Your task to perform on an android device: allow cookies in the chrome app Image 0: 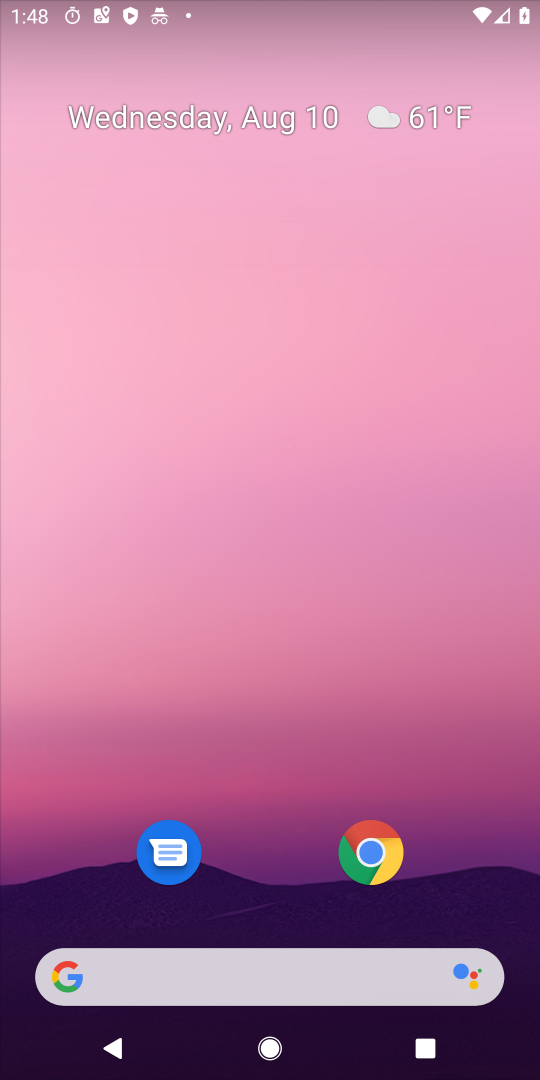
Step 0: drag from (265, 793) to (499, 53)
Your task to perform on an android device: allow cookies in the chrome app Image 1: 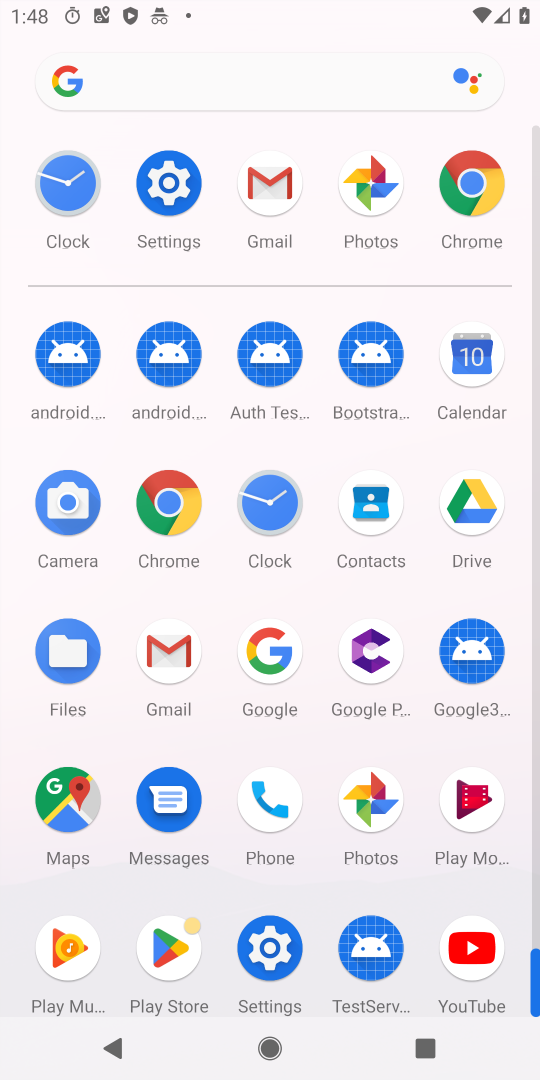
Step 1: click (170, 503)
Your task to perform on an android device: allow cookies in the chrome app Image 2: 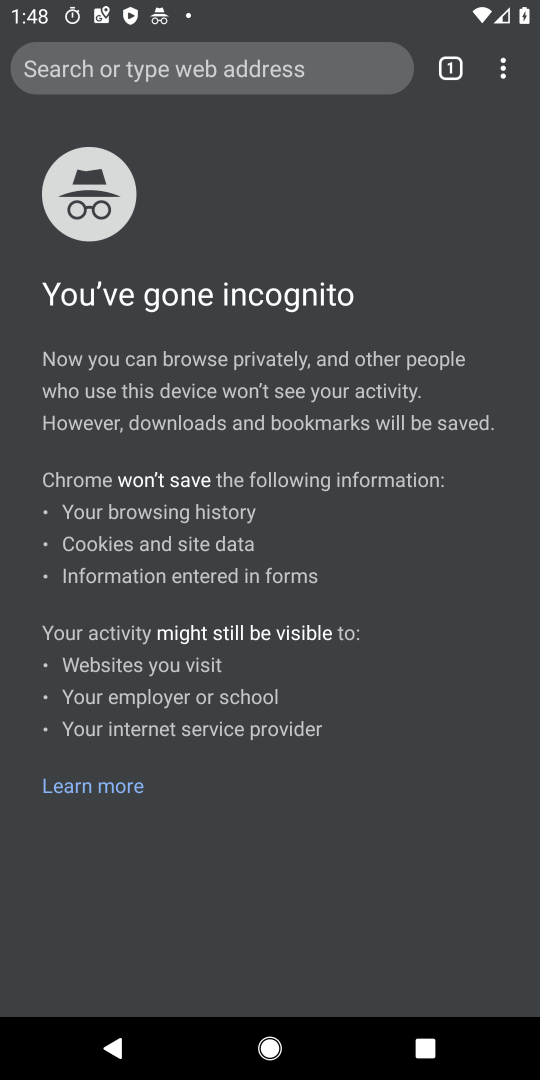
Step 2: drag from (501, 52) to (301, 509)
Your task to perform on an android device: allow cookies in the chrome app Image 3: 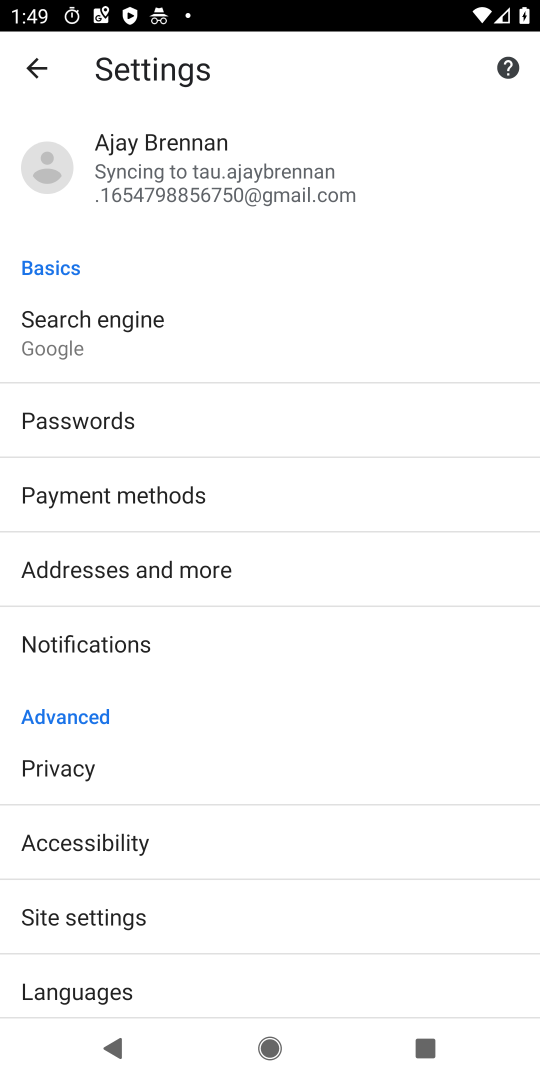
Step 3: click (121, 922)
Your task to perform on an android device: allow cookies in the chrome app Image 4: 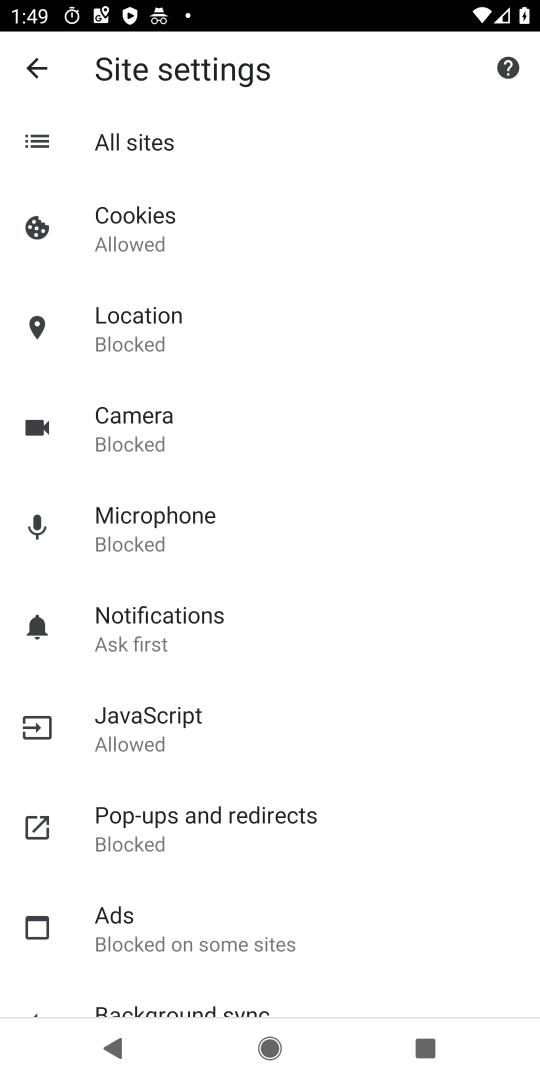
Step 4: drag from (343, 861) to (411, 393)
Your task to perform on an android device: allow cookies in the chrome app Image 5: 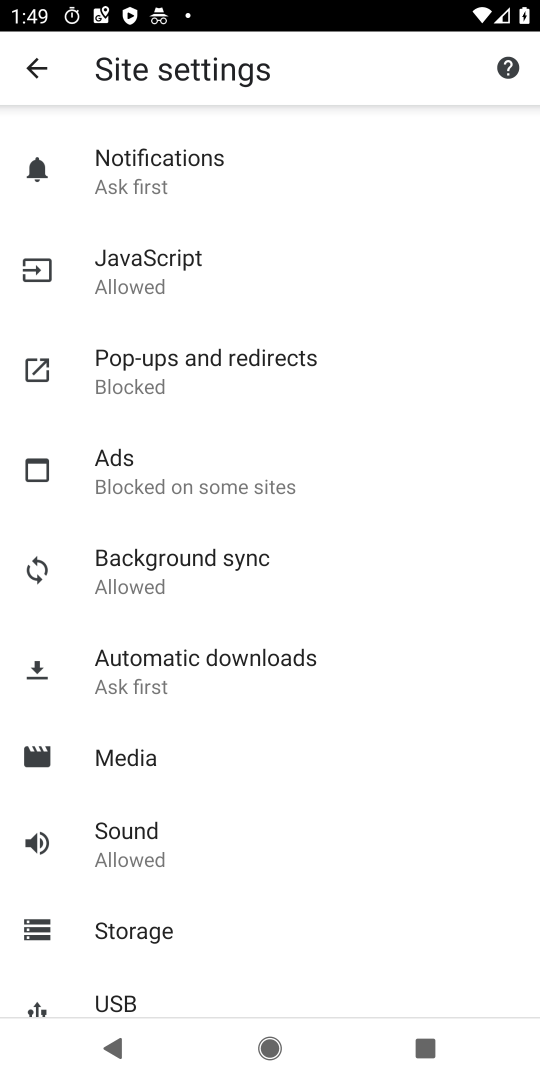
Step 5: drag from (307, 901) to (385, 299)
Your task to perform on an android device: allow cookies in the chrome app Image 6: 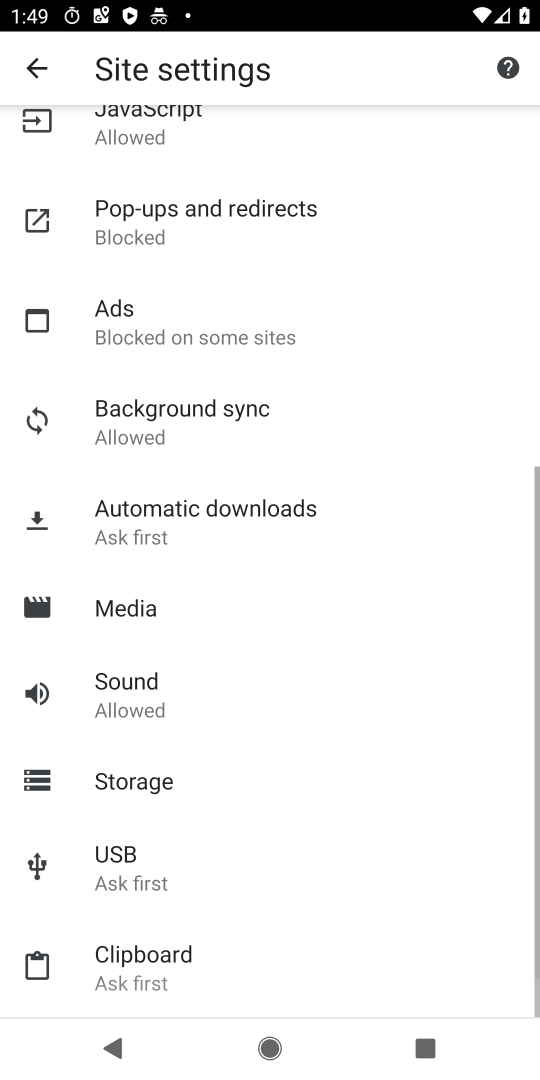
Step 6: drag from (388, 291) to (357, 997)
Your task to perform on an android device: allow cookies in the chrome app Image 7: 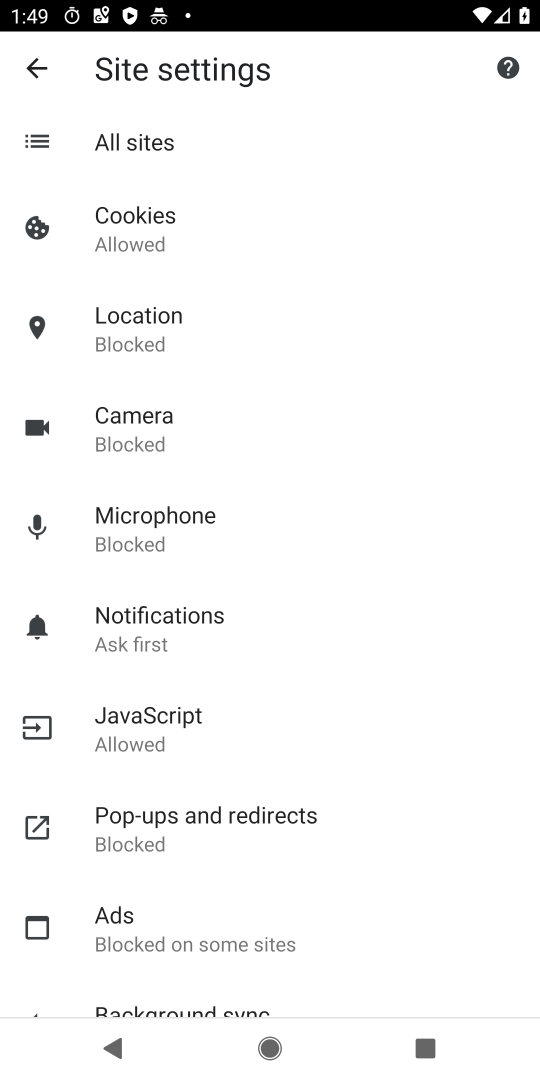
Step 7: click (104, 233)
Your task to perform on an android device: allow cookies in the chrome app Image 8: 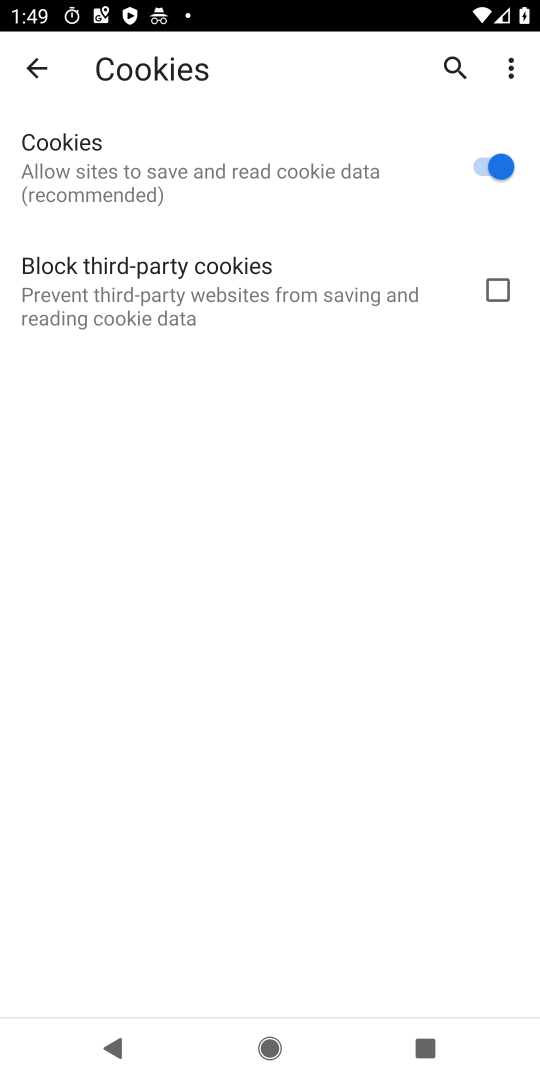
Step 8: task complete